Your task to perform on an android device: make emails show in primary in the gmail app Image 0: 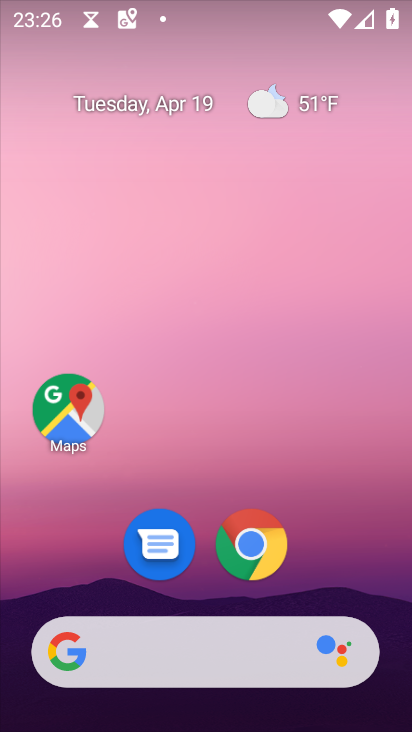
Step 0: drag from (378, 571) to (349, 77)
Your task to perform on an android device: make emails show in primary in the gmail app Image 1: 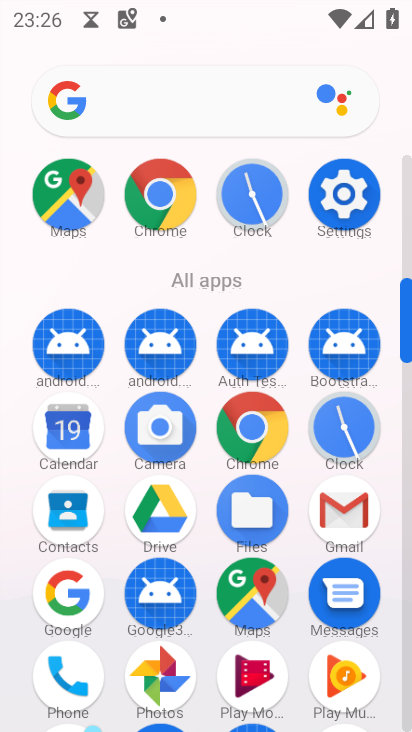
Step 1: click (351, 505)
Your task to perform on an android device: make emails show in primary in the gmail app Image 2: 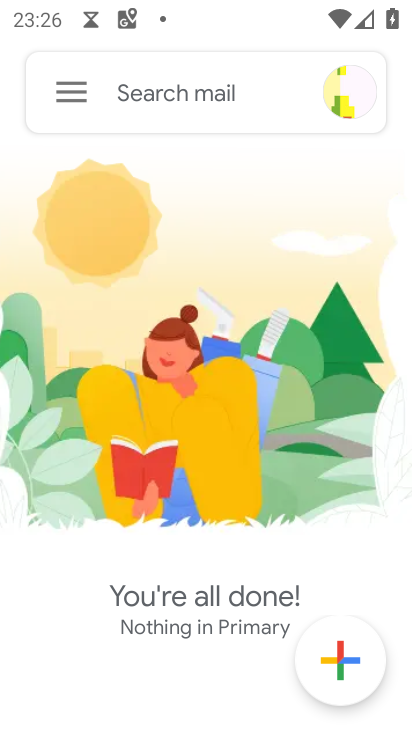
Step 2: click (60, 94)
Your task to perform on an android device: make emails show in primary in the gmail app Image 3: 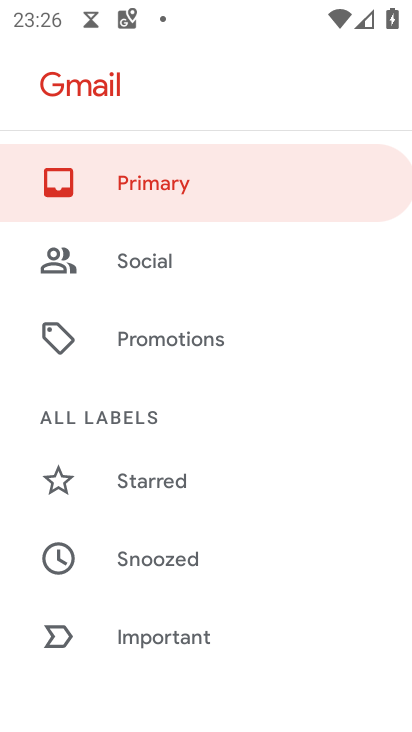
Step 3: drag from (173, 527) to (169, 448)
Your task to perform on an android device: make emails show in primary in the gmail app Image 4: 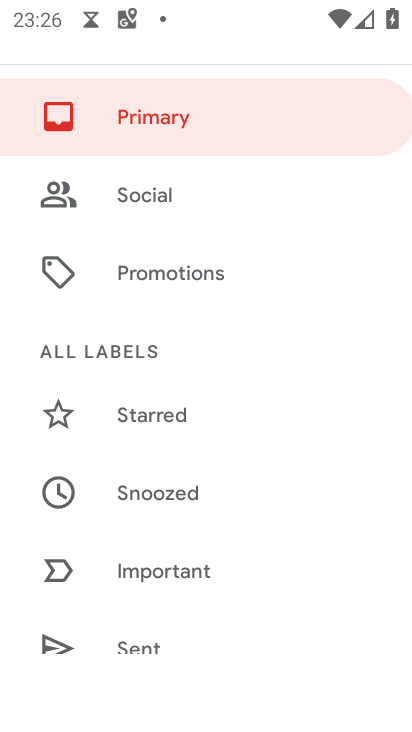
Step 4: drag from (180, 575) to (170, 445)
Your task to perform on an android device: make emails show in primary in the gmail app Image 5: 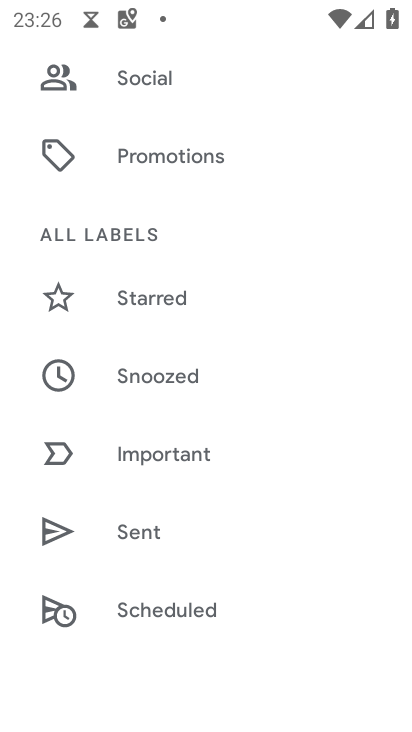
Step 5: drag from (192, 550) to (203, 447)
Your task to perform on an android device: make emails show in primary in the gmail app Image 6: 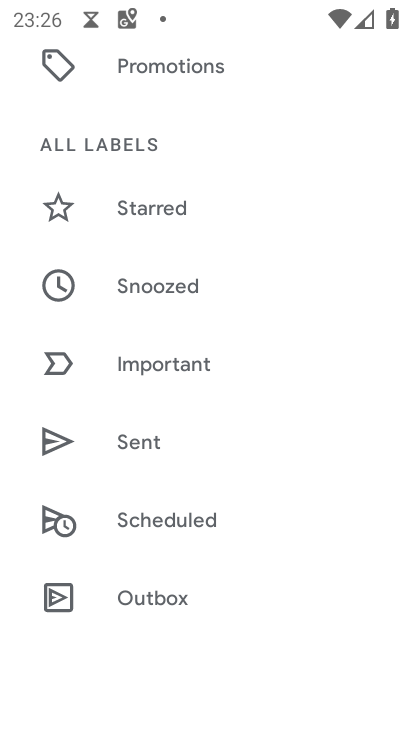
Step 6: drag from (210, 585) to (217, 509)
Your task to perform on an android device: make emails show in primary in the gmail app Image 7: 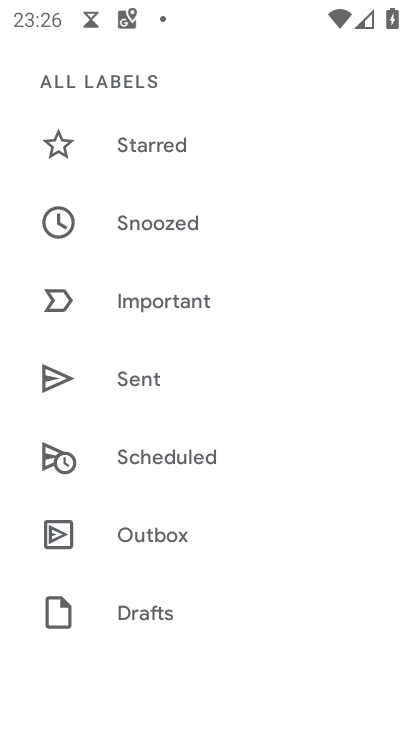
Step 7: drag from (225, 563) to (228, 487)
Your task to perform on an android device: make emails show in primary in the gmail app Image 8: 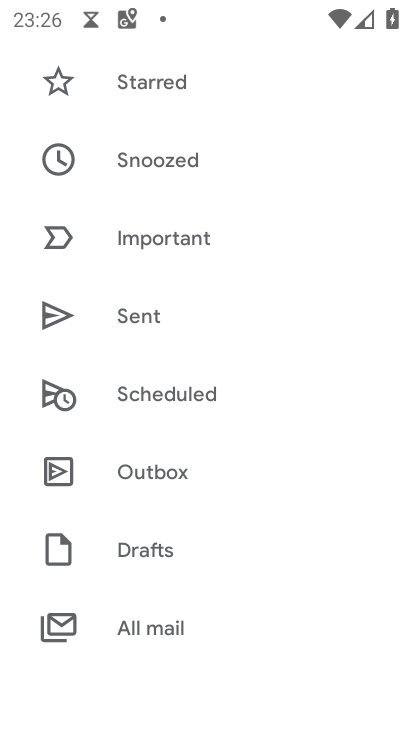
Step 8: drag from (153, 676) to (187, 518)
Your task to perform on an android device: make emails show in primary in the gmail app Image 9: 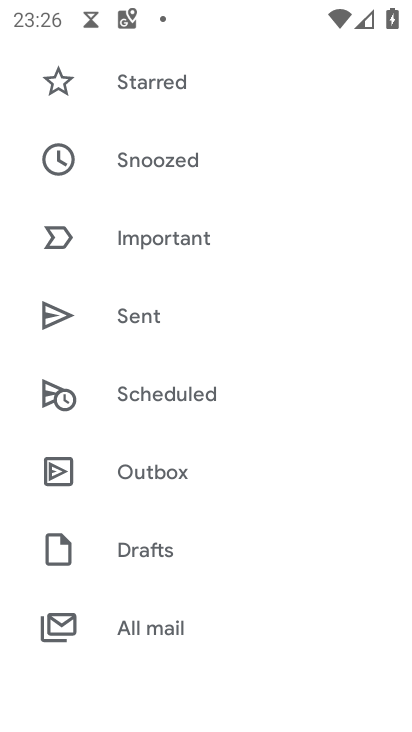
Step 9: drag from (211, 640) to (222, 503)
Your task to perform on an android device: make emails show in primary in the gmail app Image 10: 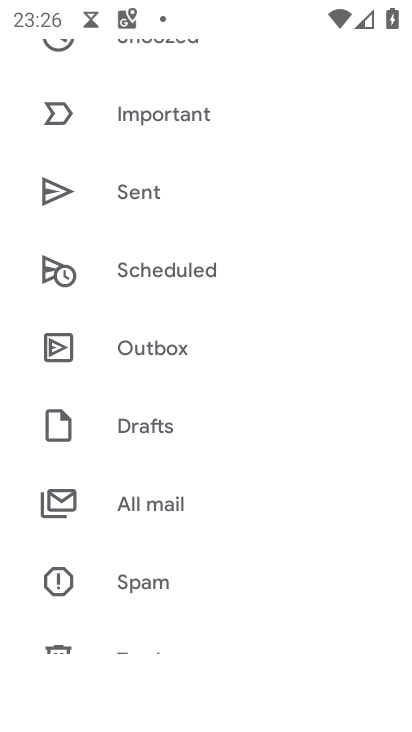
Step 10: drag from (235, 569) to (233, 451)
Your task to perform on an android device: make emails show in primary in the gmail app Image 11: 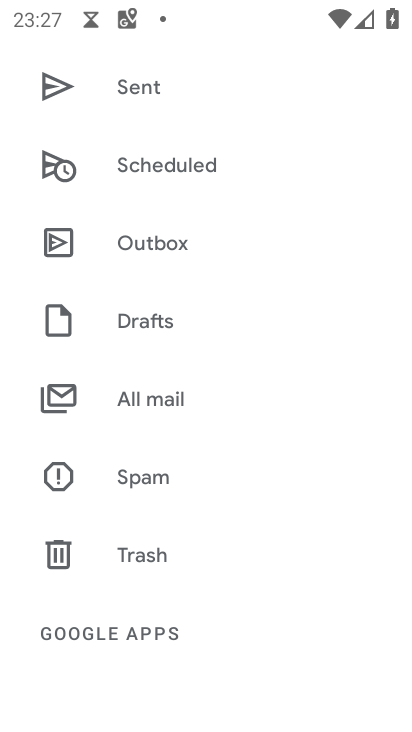
Step 11: drag from (226, 578) to (225, 474)
Your task to perform on an android device: make emails show in primary in the gmail app Image 12: 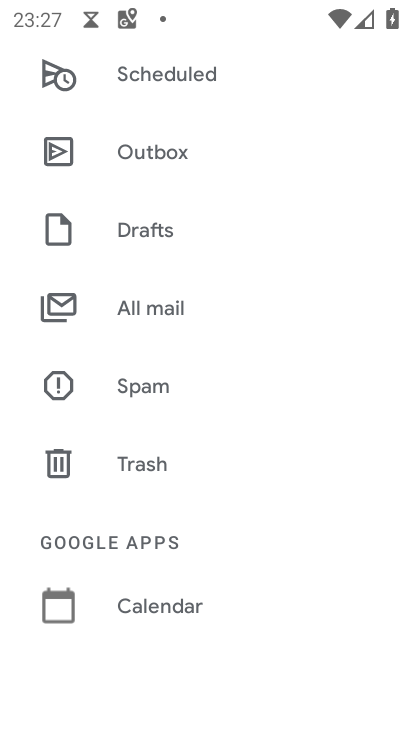
Step 12: drag from (218, 556) to (221, 469)
Your task to perform on an android device: make emails show in primary in the gmail app Image 13: 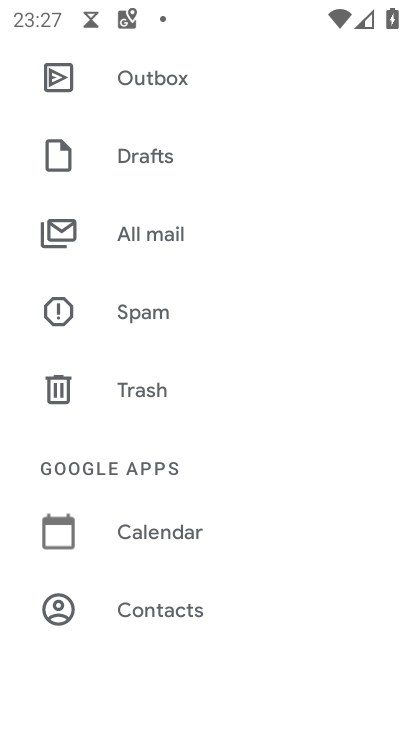
Step 13: drag from (231, 561) to (249, 450)
Your task to perform on an android device: make emails show in primary in the gmail app Image 14: 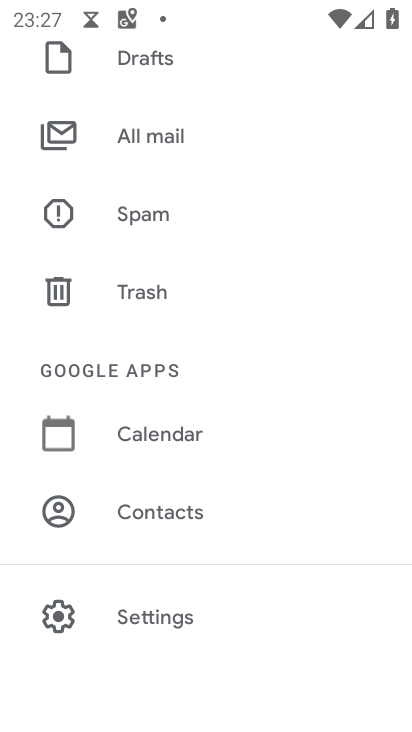
Step 14: click (219, 616)
Your task to perform on an android device: make emails show in primary in the gmail app Image 15: 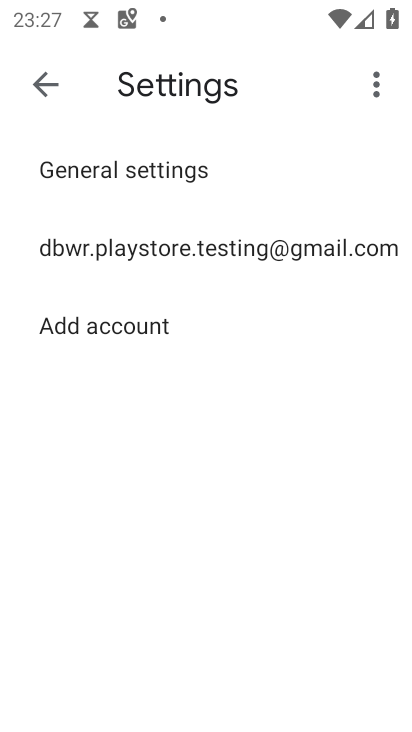
Step 15: click (260, 271)
Your task to perform on an android device: make emails show in primary in the gmail app Image 16: 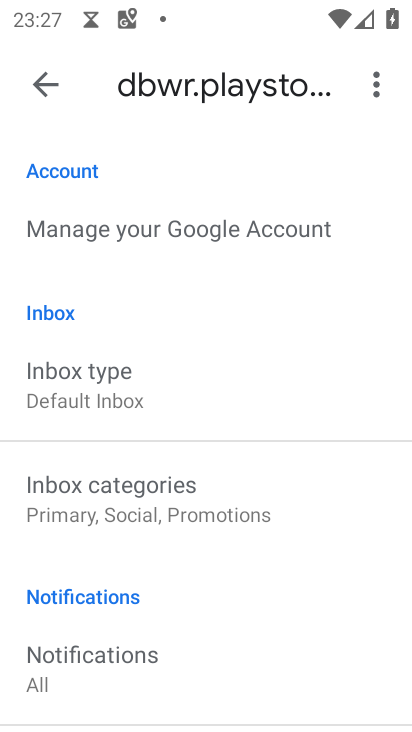
Step 16: task complete